Your task to perform on an android device: Turn off the flashlight Image 0: 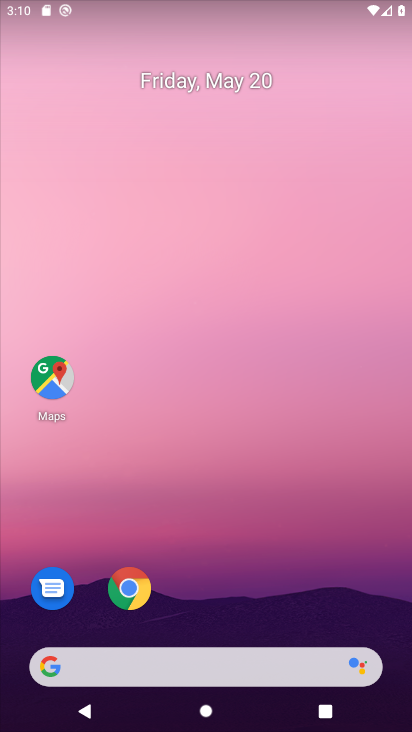
Step 0: drag from (239, 8) to (211, 424)
Your task to perform on an android device: Turn off the flashlight Image 1: 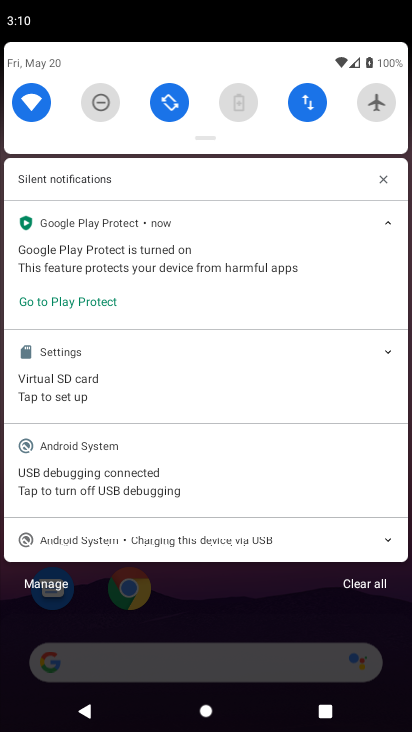
Step 1: task complete